Your task to perform on an android device: see tabs open on other devices in the chrome app Image 0: 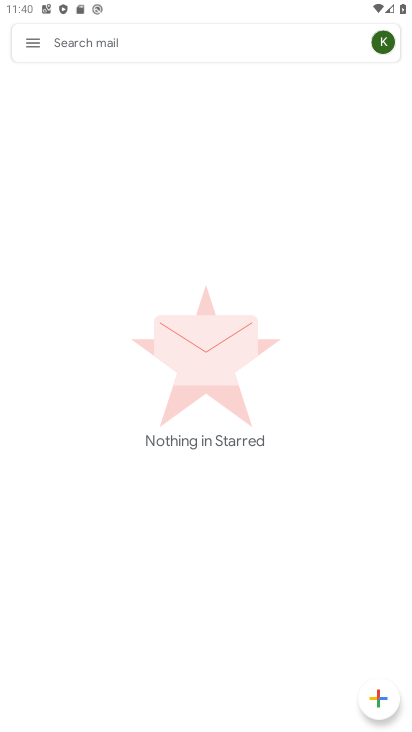
Step 0: press home button
Your task to perform on an android device: see tabs open on other devices in the chrome app Image 1: 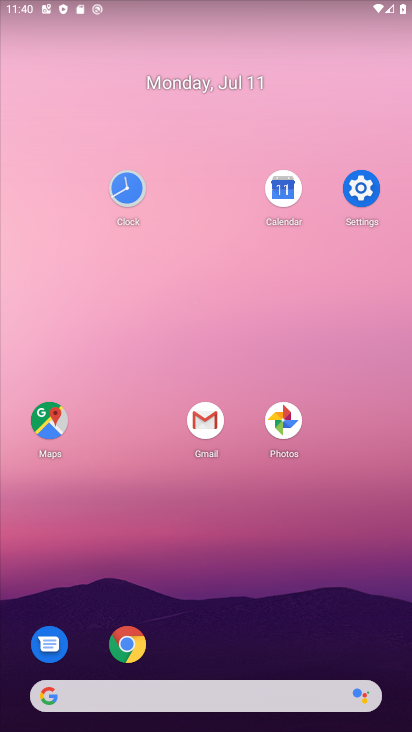
Step 1: click (122, 639)
Your task to perform on an android device: see tabs open on other devices in the chrome app Image 2: 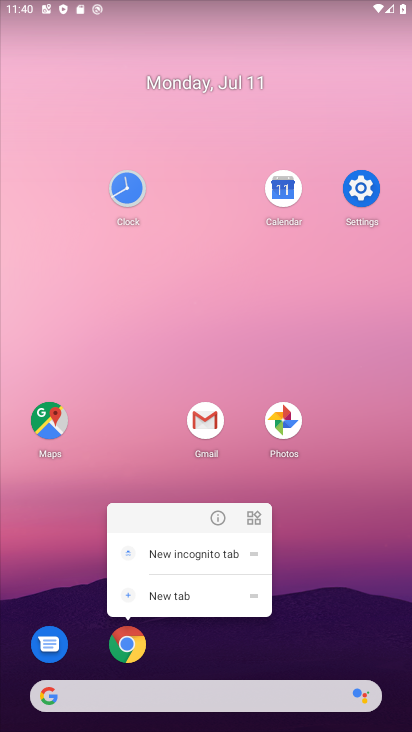
Step 2: click (122, 639)
Your task to perform on an android device: see tabs open on other devices in the chrome app Image 3: 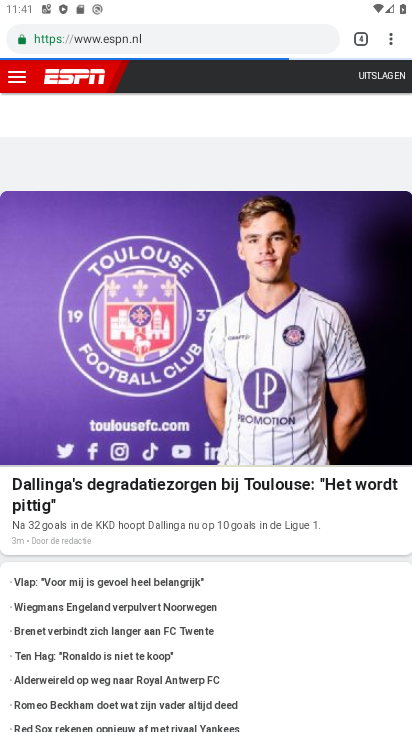
Step 3: click (398, 45)
Your task to perform on an android device: see tabs open on other devices in the chrome app Image 4: 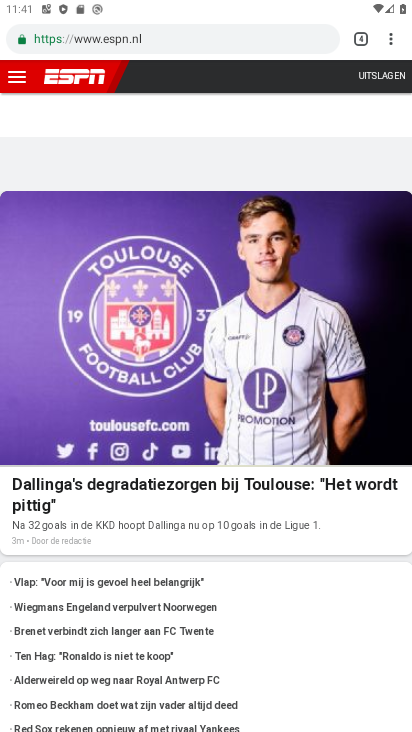
Step 4: click (396, 46)
Your task to perform on an android device: see tabs open on other devices in the chrome app Image 5: 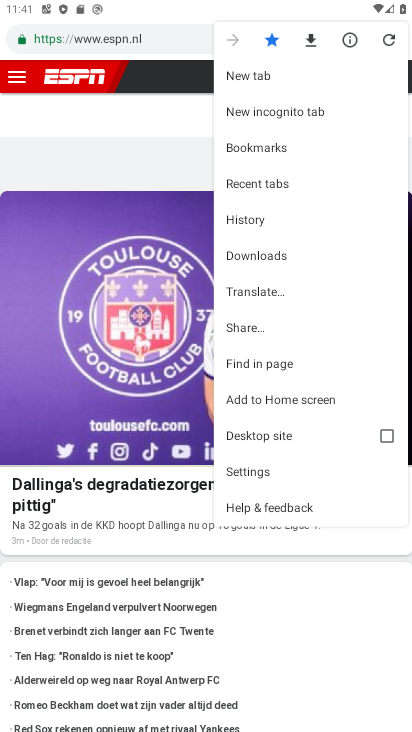
Step 5: click (298, 192)
Your task to perform on an android device: see tabs open on other devices in the chrome app Image 6: 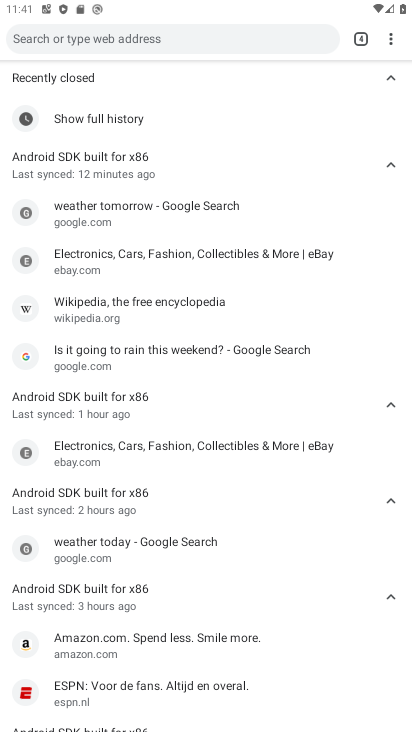
Step 6: task complete